Your task to perform on an android device: Go to settings Image 0: 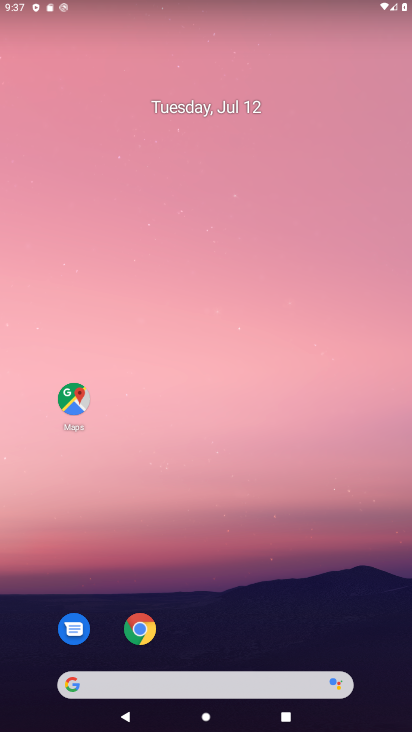
Step 0: drag from (287, 484) to (275, 38)
Your task to perform on an android device: Go to settings Image 1: 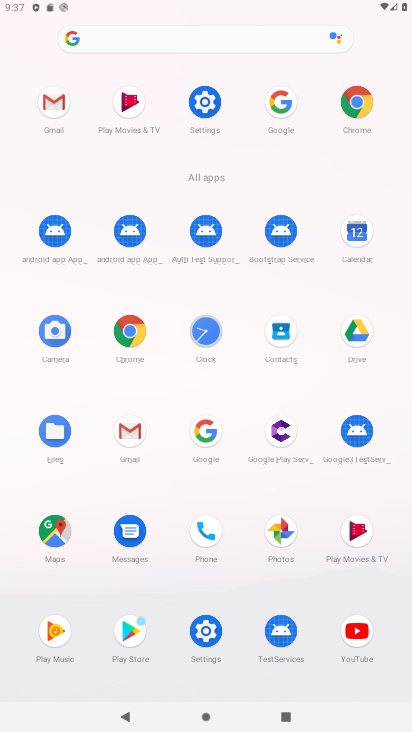
Step 1: click (217, 98)
Your task to perform on an android device: Go to settings Image 2: 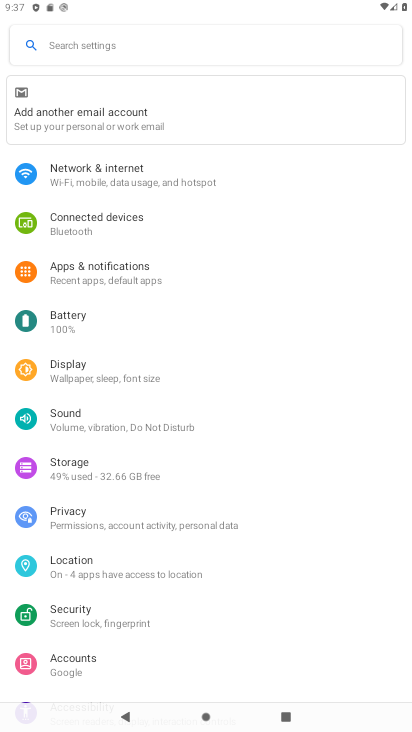
Step 2: task complete